Your task to perform on an android device: turn on priority inbox in the gmail app Image 0: 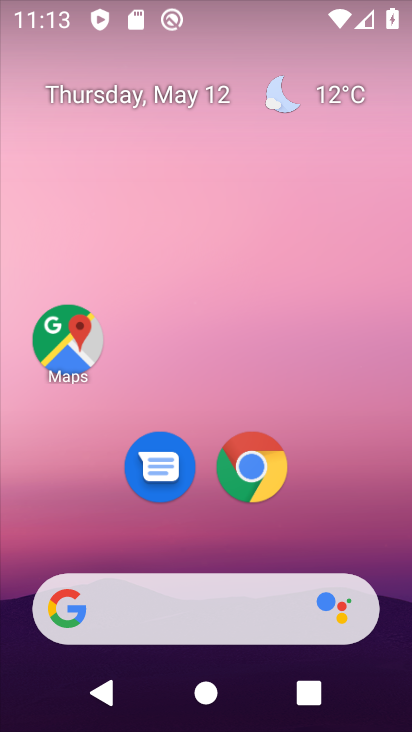
Step 0: drag from (367, 563) to (267, 16)
Your task to perform on an android device: turn on priority inbox in the gmail app Image 1: 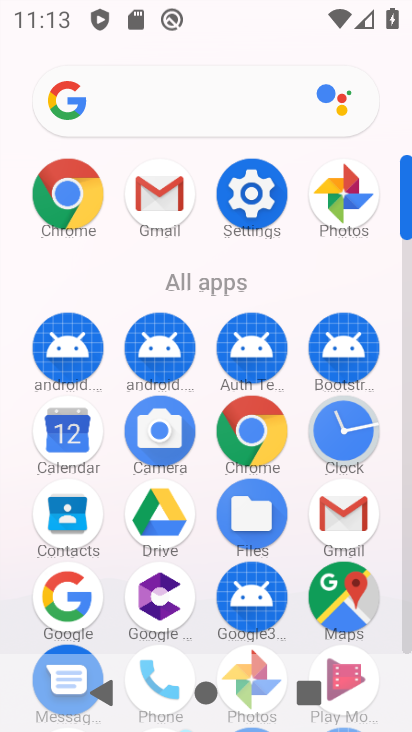
Step 1: drag from (9, 566) to (16, 214)
Your task to perform on an android device: turn on priority inbox in the gmail app Image 2: 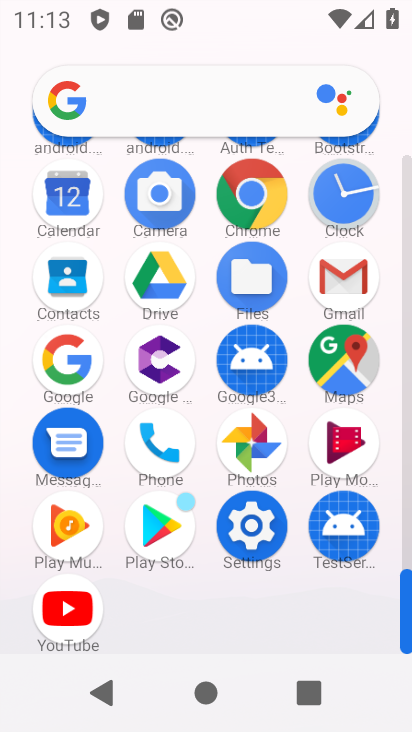
Step 2: click (339, 263)
Your task to perform on an android device: turn on priority inbox in the gmail app Image 3: 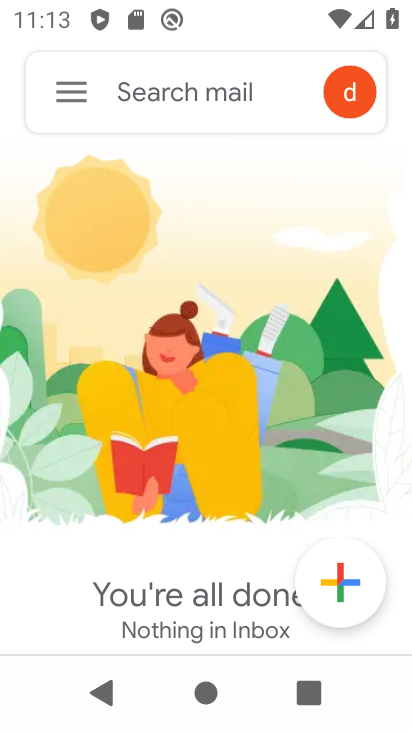
Step 3: click (62, 74)
Your task to perform on an android device: turn on priority inbox in the gmail app Image 4: 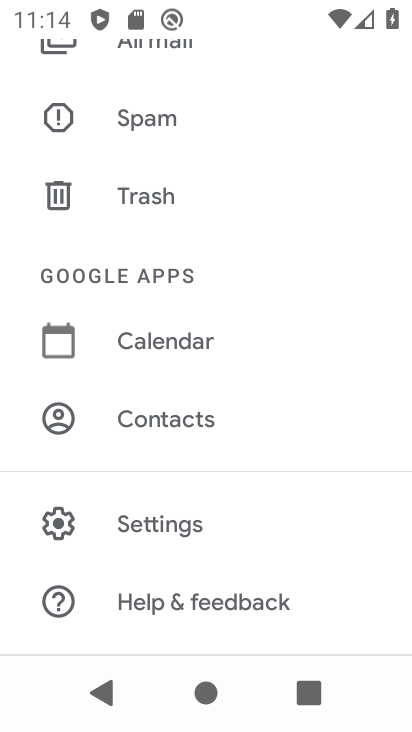
Step 4: click (158, 524)
Your task to perform on an android device: turn on priority inbox in the gmail app Image 5: 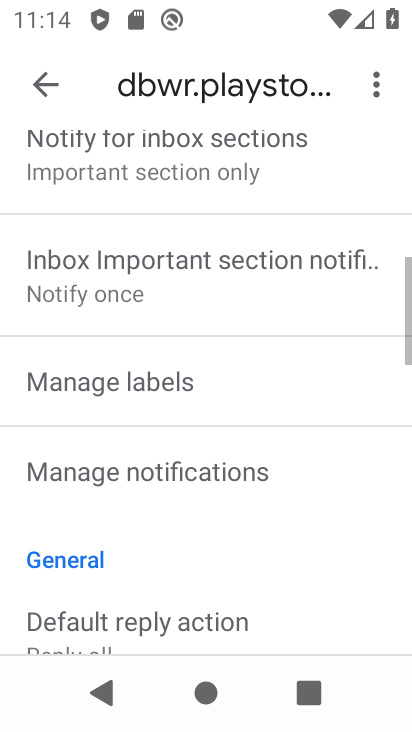
Step 5: drag from (252, 567) to (273, 119)
Your task to perform on an android device: turn on priority inbox in the gmail app Image 6: 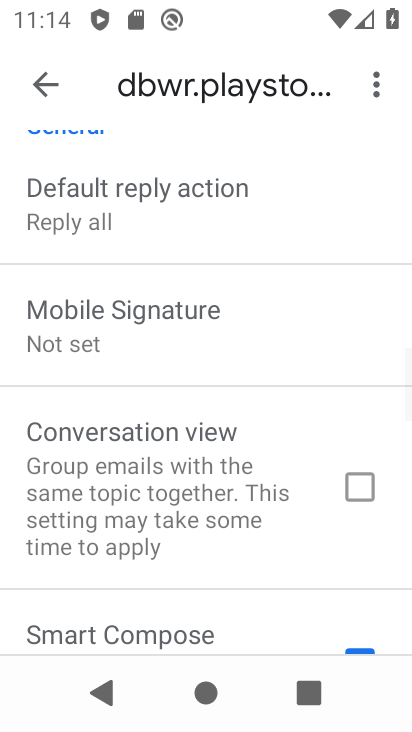
Step 6: drag from (274, 250) to (262, 639)
Your task to perform on an android device: turn on priority inbox in the gmail app Image 7: 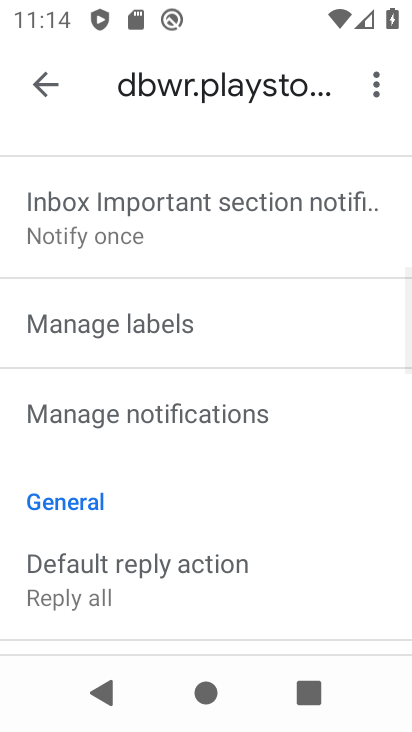
Step 7: drag from (298, 277) to (298, 624)
Your task to perform on an android device: turn on priority inbox in the gmail app Image 8: 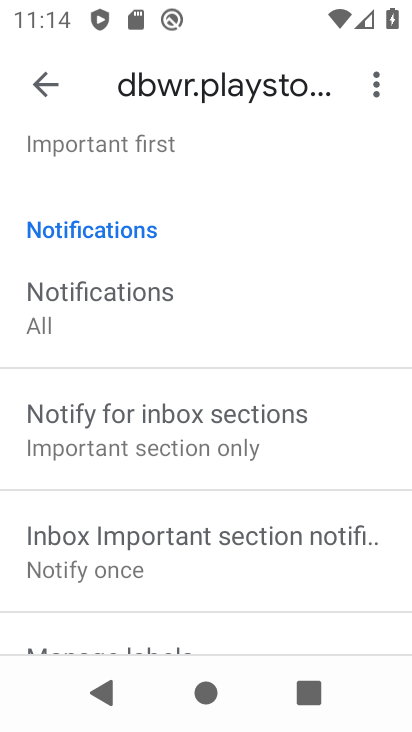
Step 8: drag from (288, 338) to (289, 607)
Your task to perform on an android device: turn on priority inbox in the gmail app Image 9: 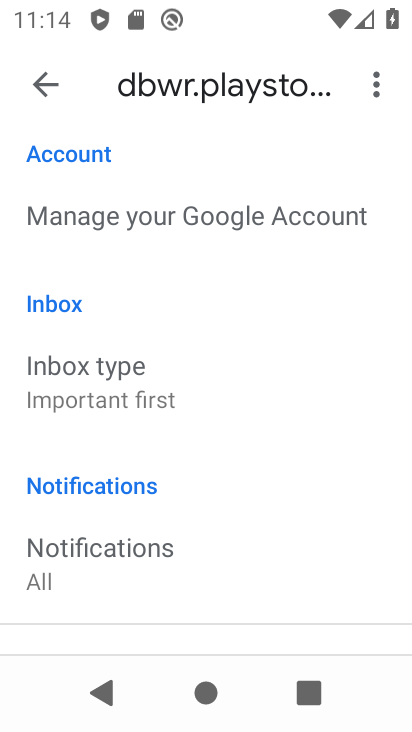
Step 9: drag from (244, 519) to (263, 201)
Your task to perform on an android device: turn on priority inbox in the gmail app Image 10: 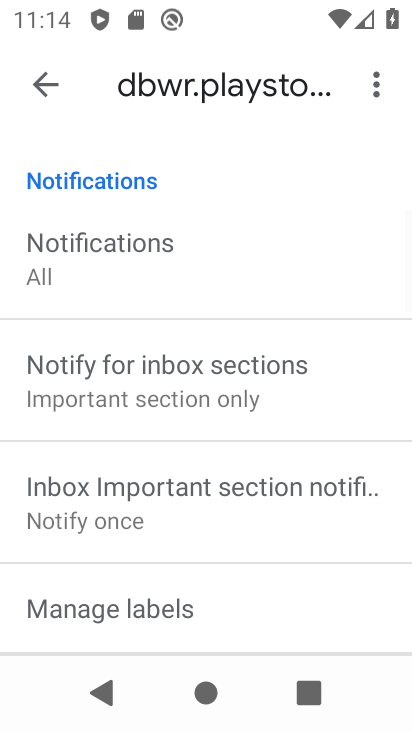
Step 10: drag from (238, 212) to (236, 528)
Your task to perform on an android device: turn on priority inbox in the gmail app Image 11: 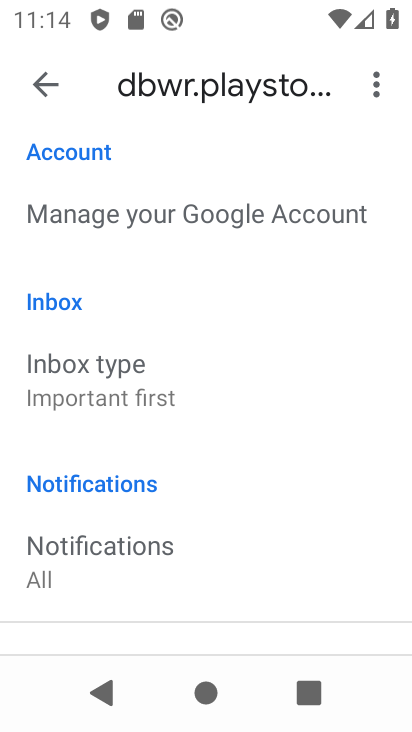
Step 11: click (158, 393)
Your task to perform on an android device: turn on priority inbox in the gmail app Image 12: 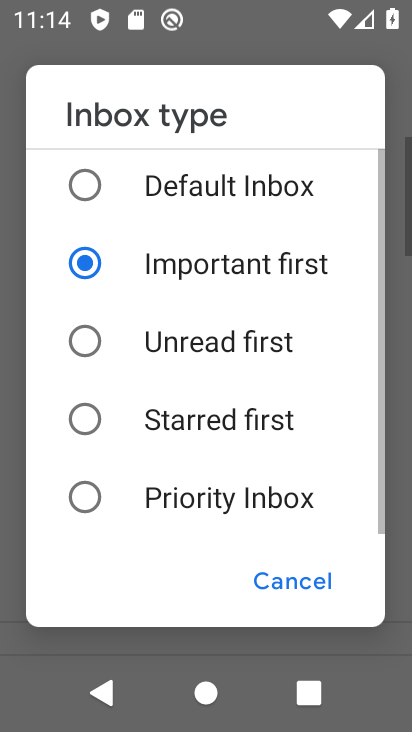
Step 12: click (189, 504)
Your task to perform on an android device: turn on priority inbox in the gmail app Image 13: 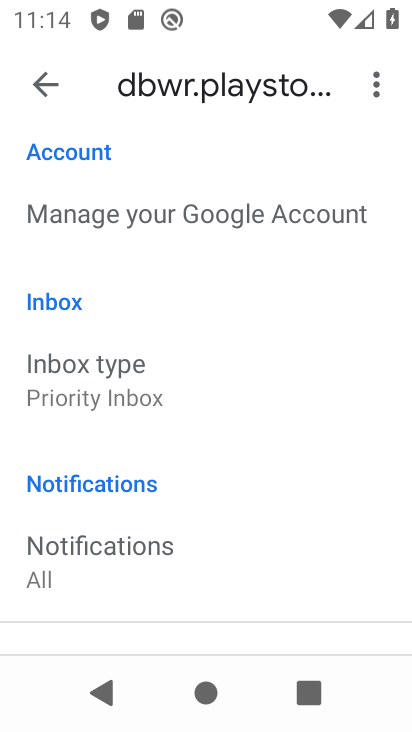
Step 13: task complete